Your task to perform on an android device: clear all cookies in the chrome app Image 0: 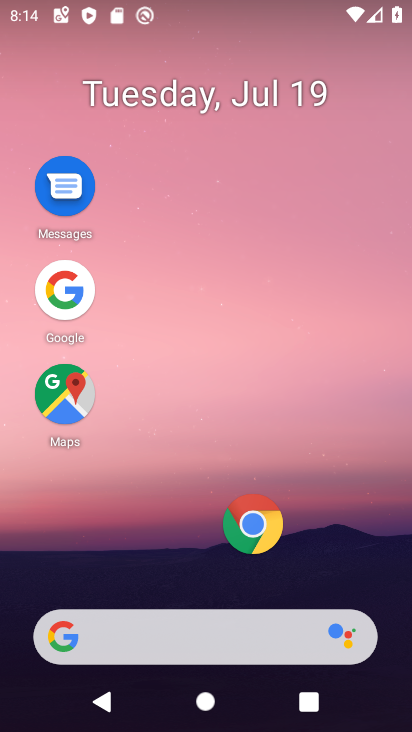
Step 0: drag from (200, 584) to (127, 87)
Your task to perform on an android device: clear all cookies in the chrome app Image 1: 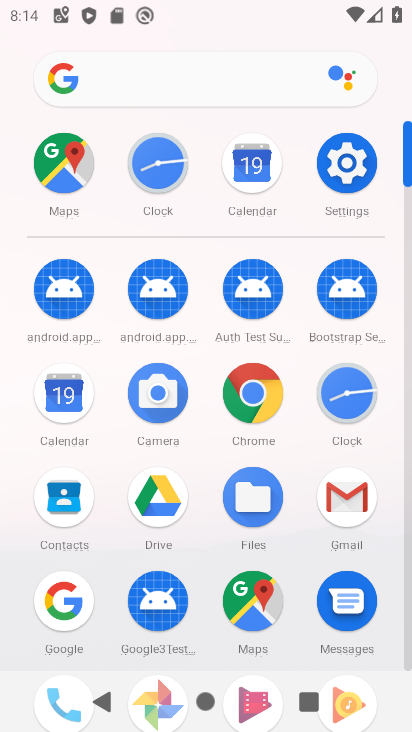
Step 1: click (256, 382)
Your task to perform on an android device: clear all cookies in the chrome app Image 2: 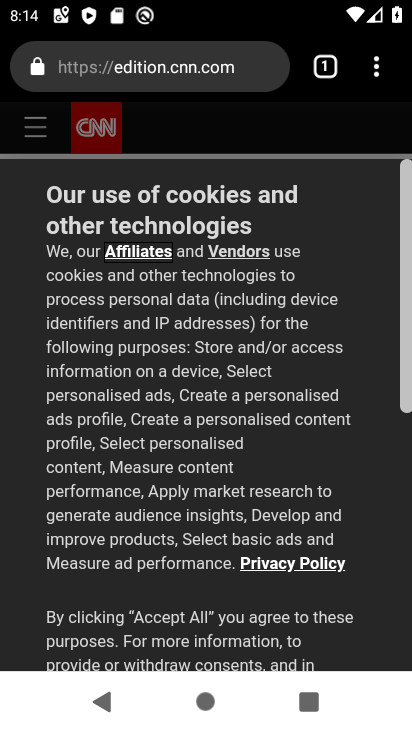
Step 2: click (370, 71)
Your task to perform on an android device: clear all cookies in the chrome app Image 3: 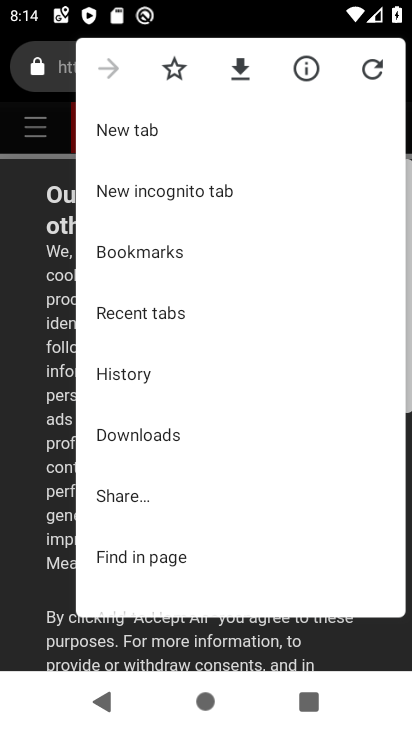
Step 3: click (120, 371)
Your task to perform on an android device: clear all cookies in the chrome app Image 4: 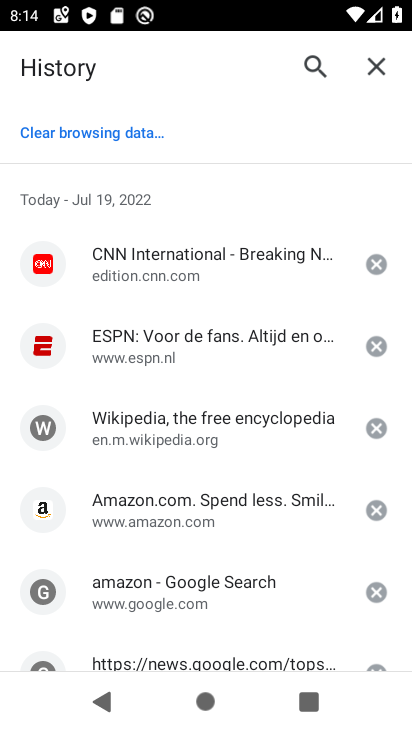
Step 4: click (67, 133)
Your task to perform on an android device: clear all cookies in the chrome app Image 5: 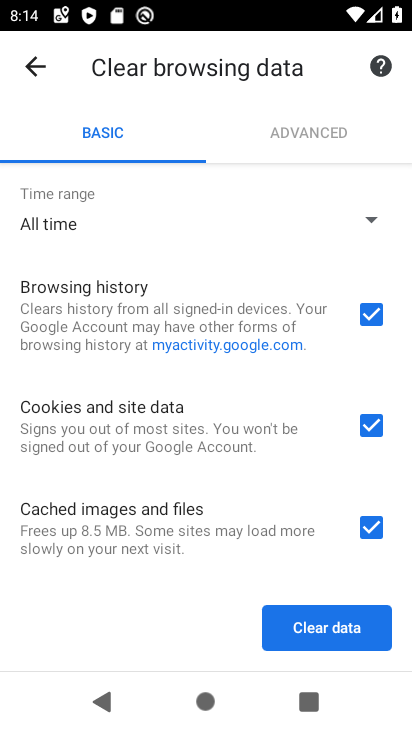
Step 5: click (315, 637)
Your task to perform on an android device: clear all cookies in the chrome app Image 6: 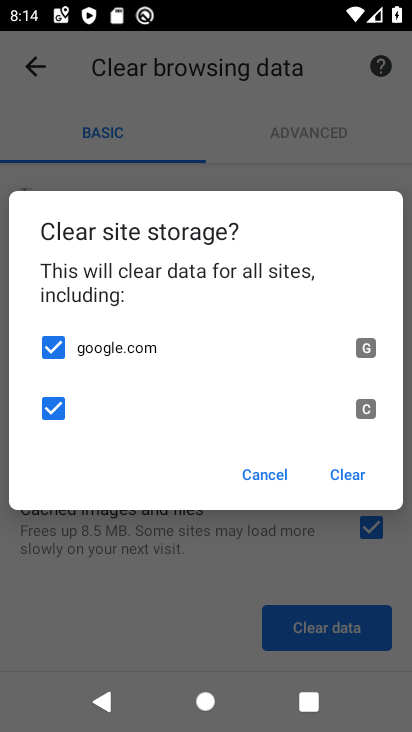
Step 6: click (343, 477)
Your task to perform on an android device: clear all cookies in the chrome app Image 7: 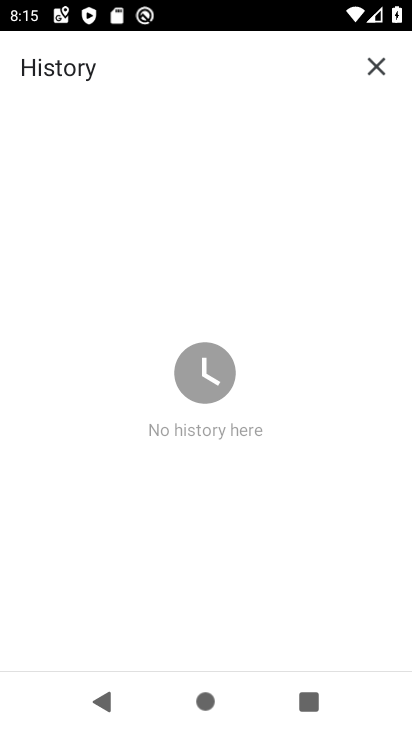
Step 7: task complete